Your task to perform on an android device: What is the news today? Image 0: 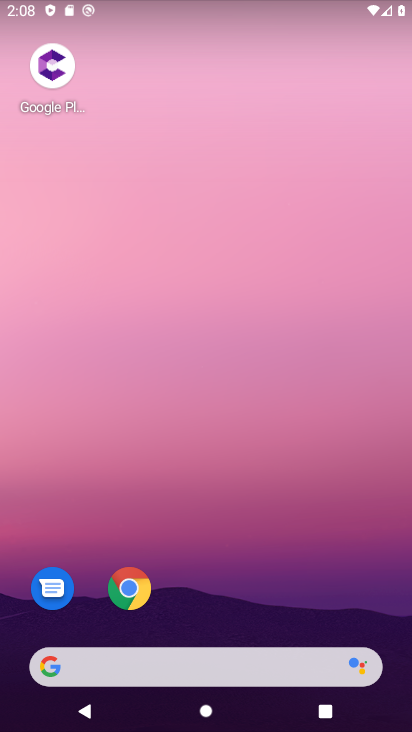
Step 0: click (253, 85)
Your task to perform on an android device: What is the news today? Image 1: 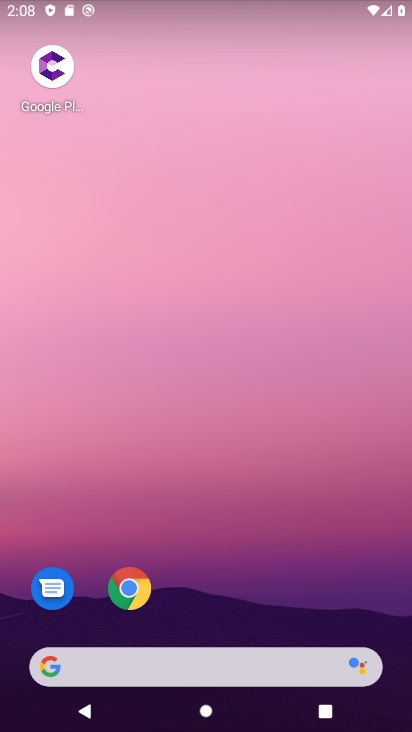
Step 1: drag from (268, 611) to (237, 97)
Your task to perform on an android device: What is the news today? Image 2: 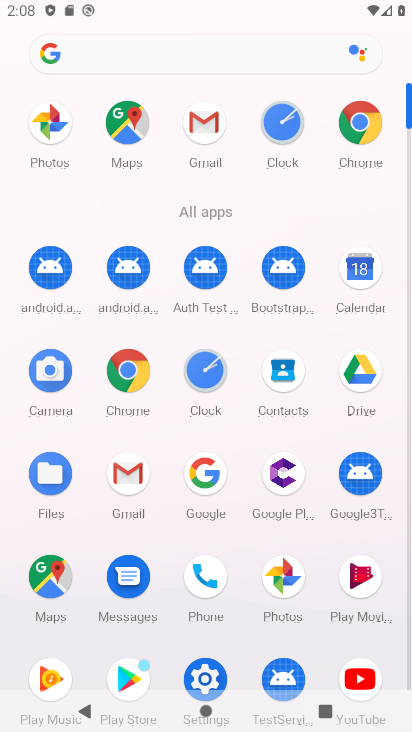
Step 2: click (356, 121)
Your task to perform on an android device: What is the news today? Image 3: 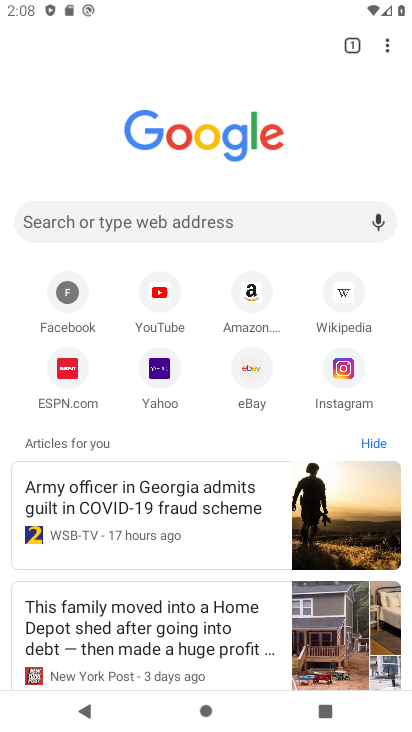
Step 3: click (212, 219)
Your task to perform on an android device: What is the news today? Image 4: 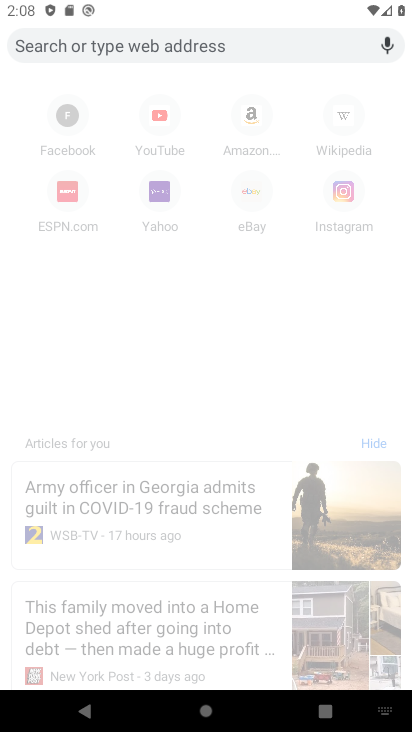
Step 4: type "news"
Your task to perform on an android device: What is the news today? Image 5: 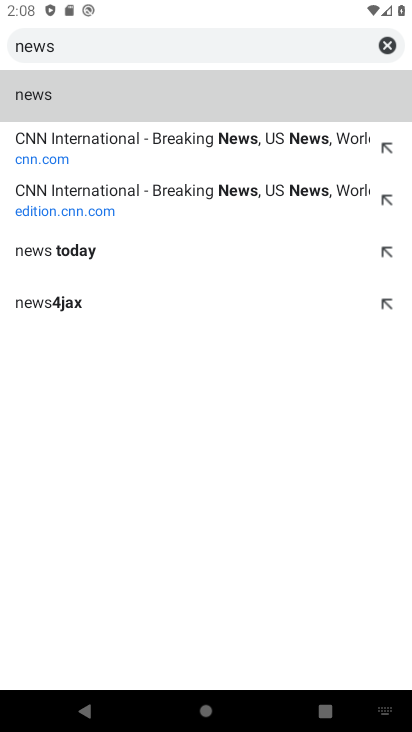
Step 5: click (42, 96)
Your task to perform on an android device: What is the news today? Image 6: 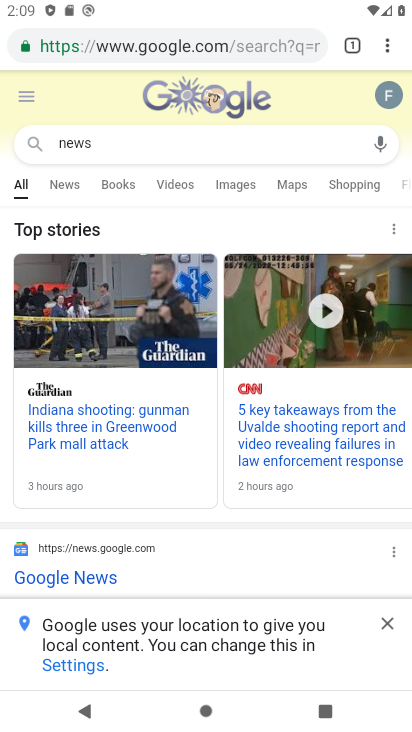
Step 6: click (78, 581)
Your task to perform on an android device: What is the news today? Image 7: 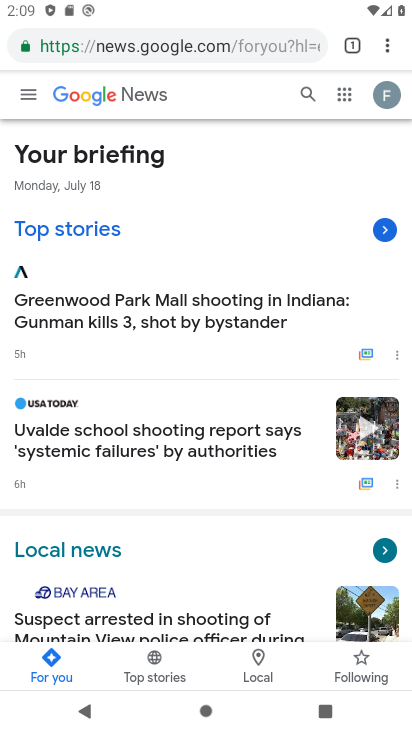
Step 7: task complete